Your task to perform on an android device: turn on showing notifications on the lock screen Image 0: 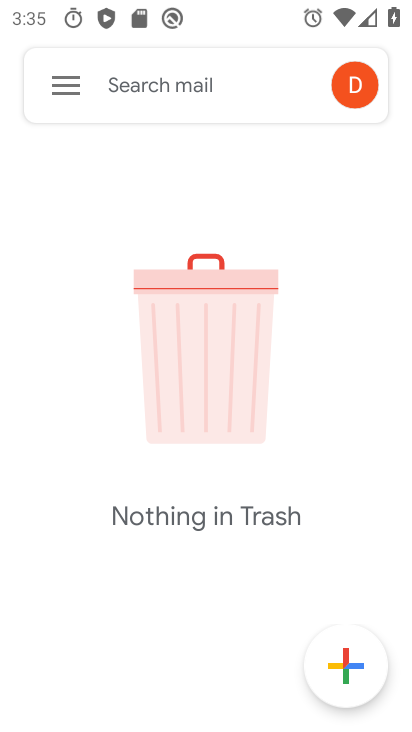
Step 0: press home button
Your task to perform on an android device: turn on showing notifications on the lock screen Image 1: 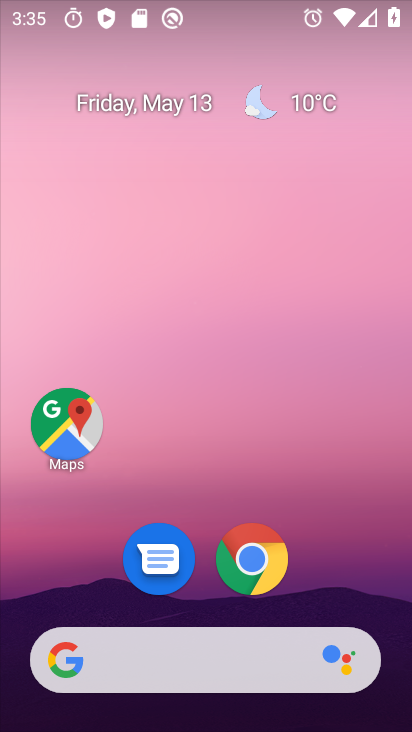
Step 1: drag from (206, 605) to (188, 231)
Your task to perform on an android device: turn on showing notifications on the lock screen Image 2: 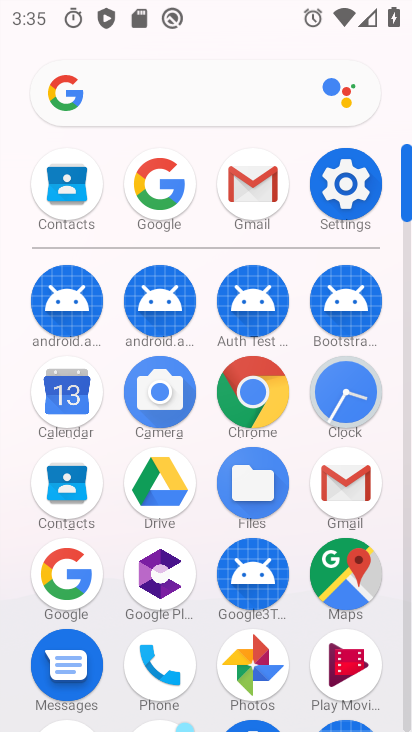
Step 2: click (321, 192)
Your task to perform on an android device: turn on showing notifications on the lock screen Image 3: 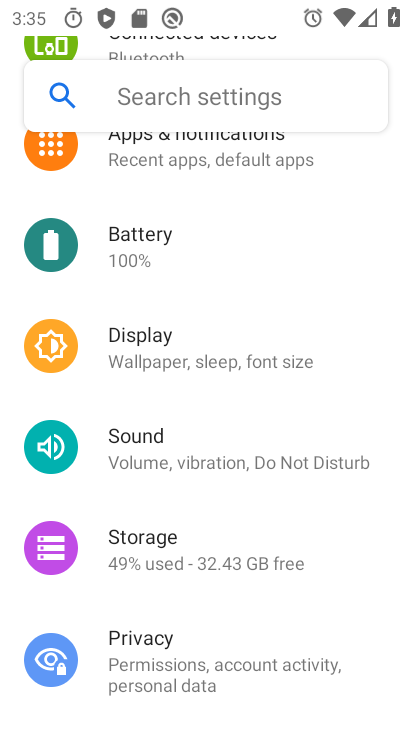
Step 3: drag from (233, 227) to (240, 422)
Your task to perform on an android device: turn on showing notifications on the lock screen Image 4: 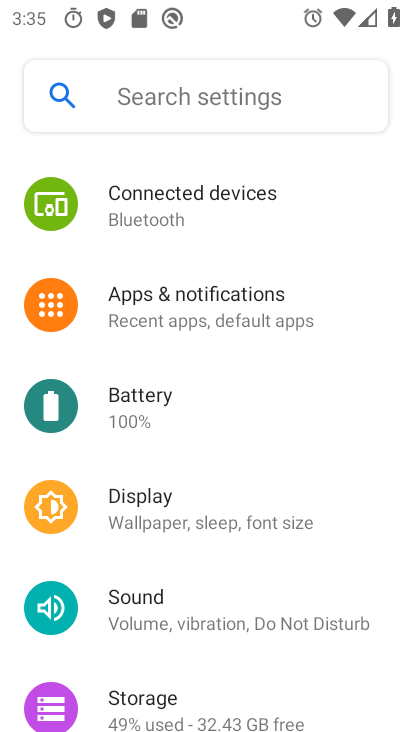
Step 4: click (222, 325)
Your task to perform on an android device: turn on showing notifications on the lock screen Image 5: 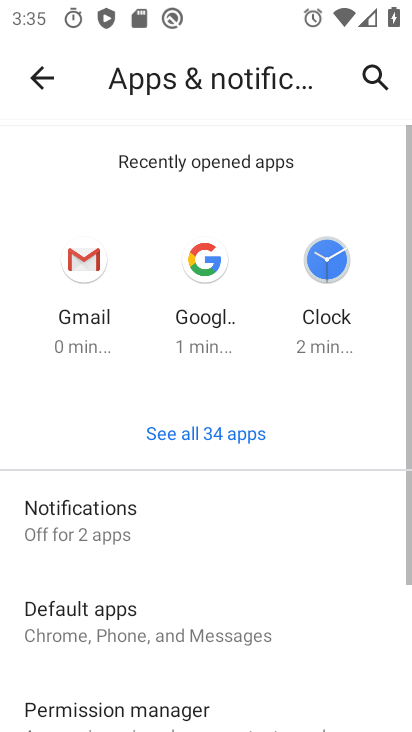
Step 5: click (178, 521)
Your task to perform on an android device: turn on showing notifications on the lock screen Image 6: 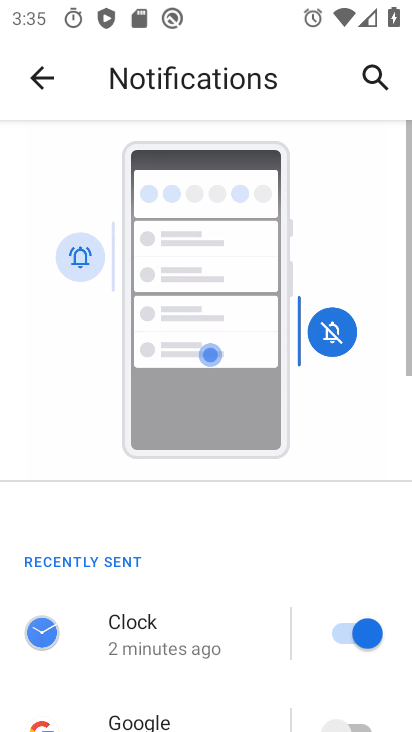
Step 6: drag from (216, 598) to (188, 282)
Your task to perform on an android device: turn on showing notifications on the lock screen Image 7: 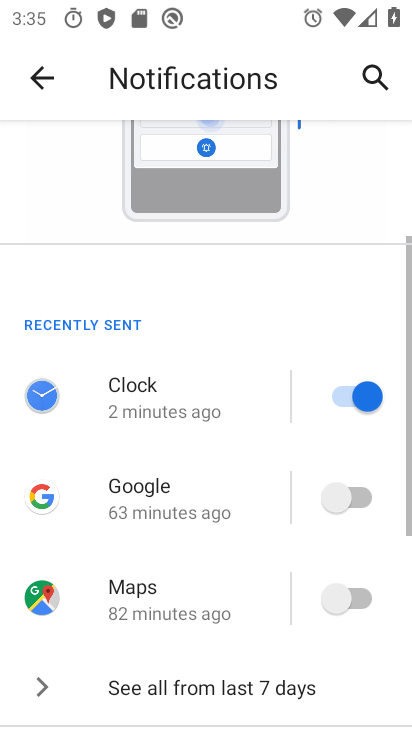
Step 7: drag from (192, 645) to (199, 335)
Your task to perform on an android device: turn on showing notifications on the lock screen Image 8: 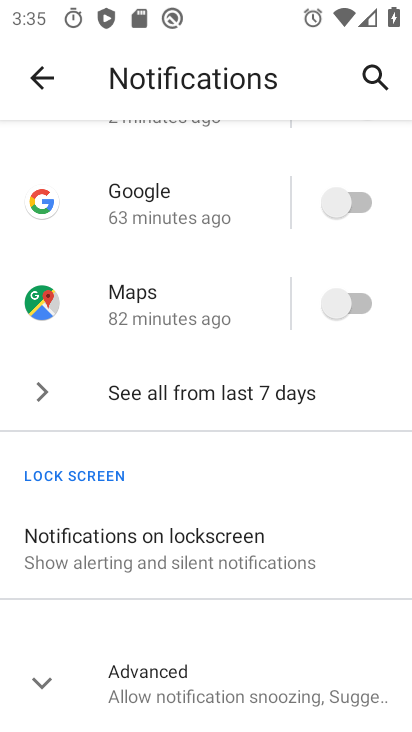
Step 8: drag from (167, 636) to (177, 431)
Your task to perform on an android device: turn on showing notifications on the lock screen Image 9: 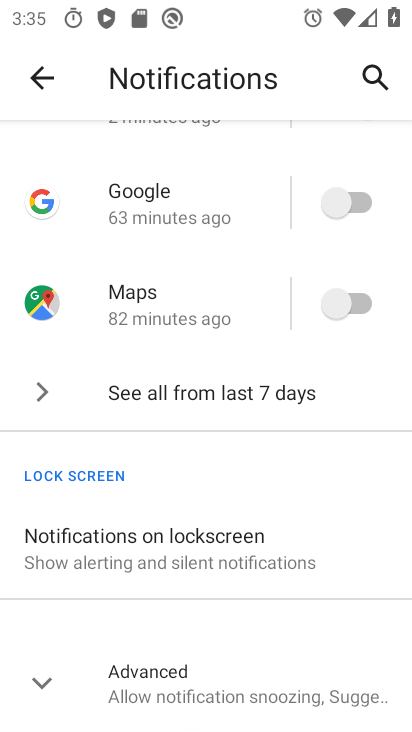
Step 9: drag from (222, 626) to (199, 452)
Your task to perform on an android device: turn on showing notifications on the lock screen Image 10: 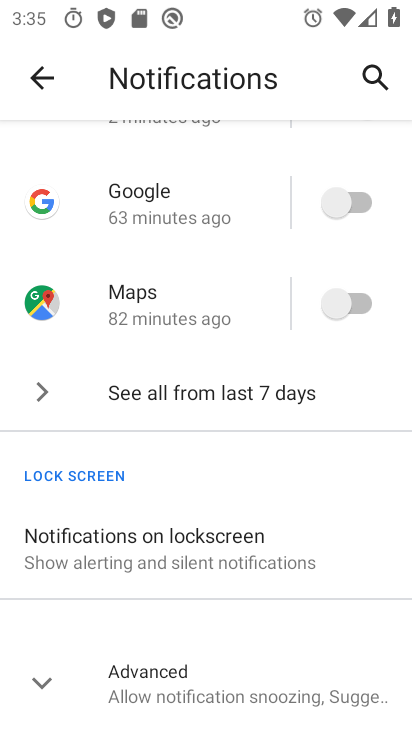
Step 10: click (199, 548)
Your task to perform on an android device: turn on showing notifications on the lock screen Image 11: 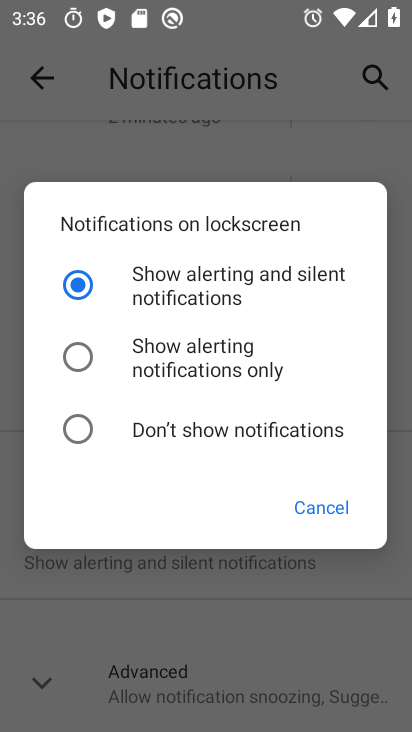
Step 11: task complete